Your task to perform on an android device: turn on sleep mode Image 0: 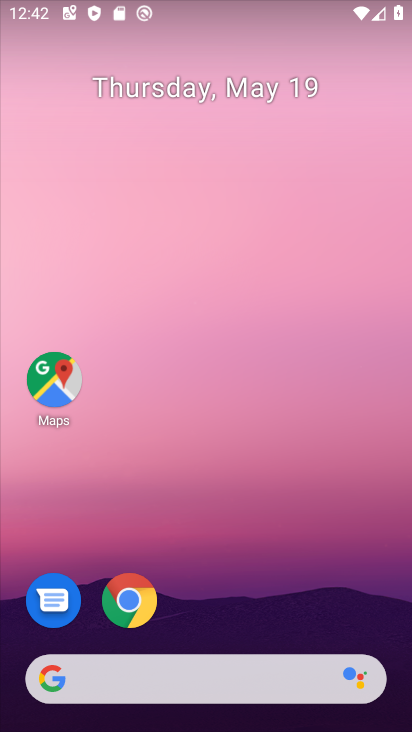
Step 0: drag from (239, 596) to (221, 142)
Your task to perform on an android device: turn on sleep mode Image 1: 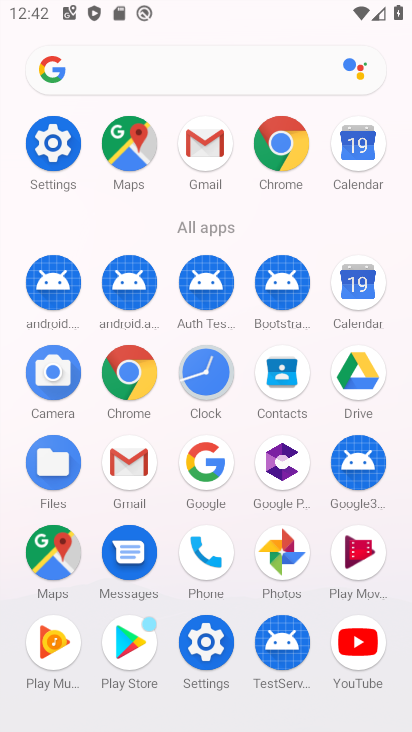
Step 1: click (43, 160)
Your task to perform on an android device: turn on sleep mode Image 2: 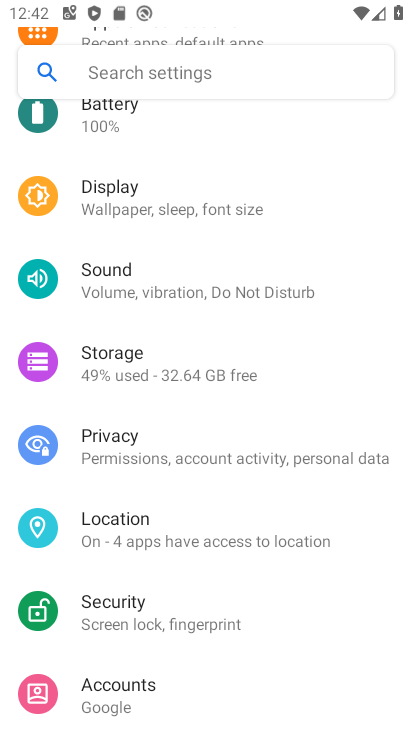
Step 2: drag from (43, 160) to (72, 240)
Your task to perform on an android device: turn on sleep mode Image 3: 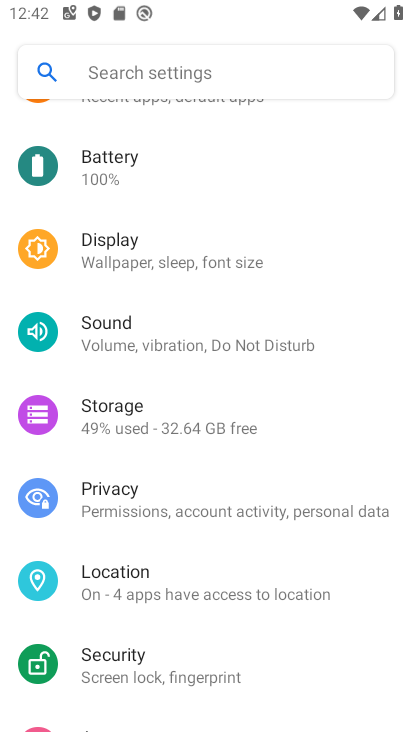
Step 3: click (125, 273)
Your task to perform on an android device: turn on sleep mode Image 4: 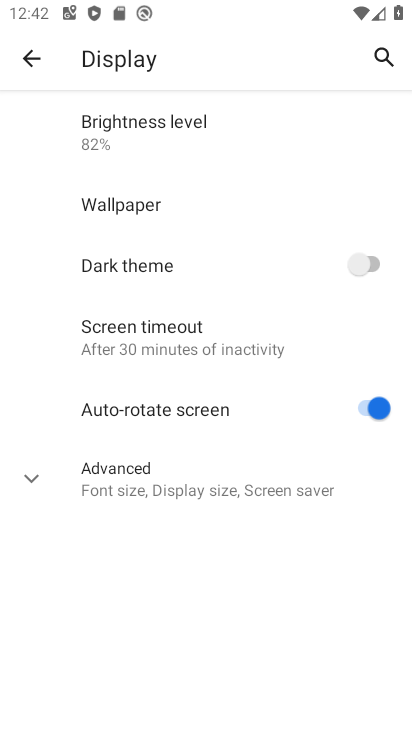
Step 4: click (161, 365)
Your task to perform on an android device: turn on sleep mode Image 5: 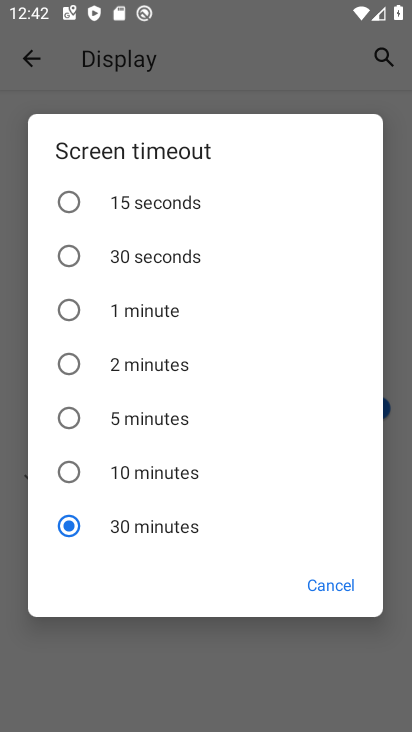
Step 5: click (160, 364)
Your task to perform on an android device: turn on sleep mode Image 6: 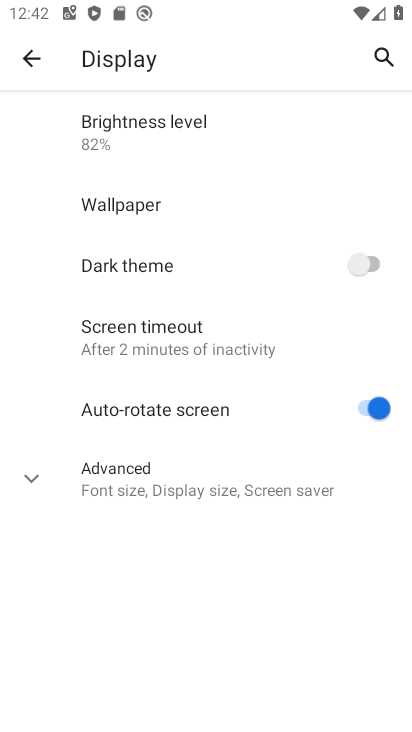
Step 6: task complete